Your task to perform on an android device: What's on my calendar tomorrow? Image 0: 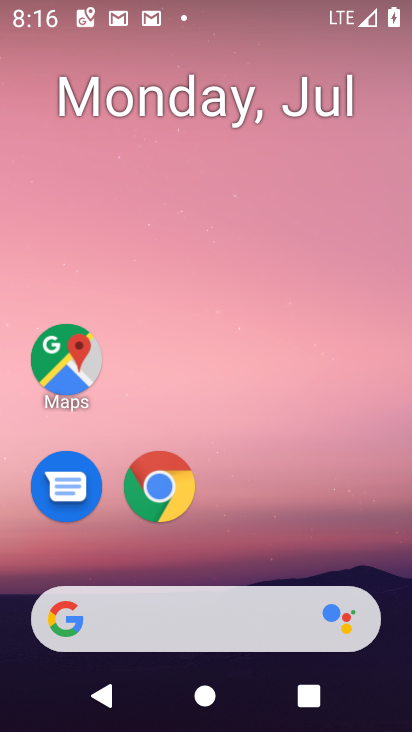
Step 0: click (228, 608)
Your task to perform on an android device: What's on my calendar tomorrow? Image 1: 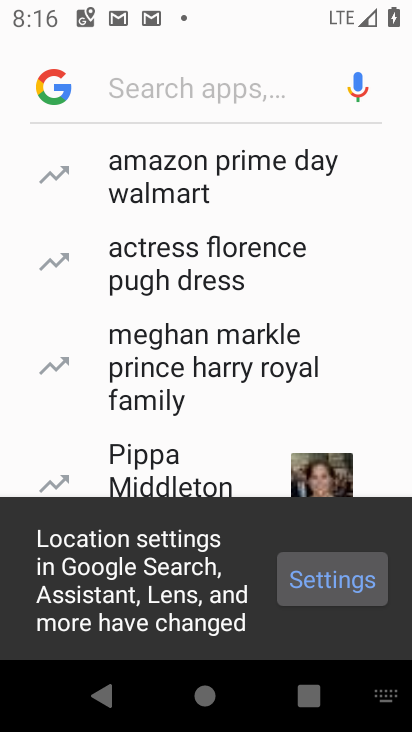
Step 1: click (213, 101)
Your task to perform on an android device: What's on my calendar tomorrow? Image 2: 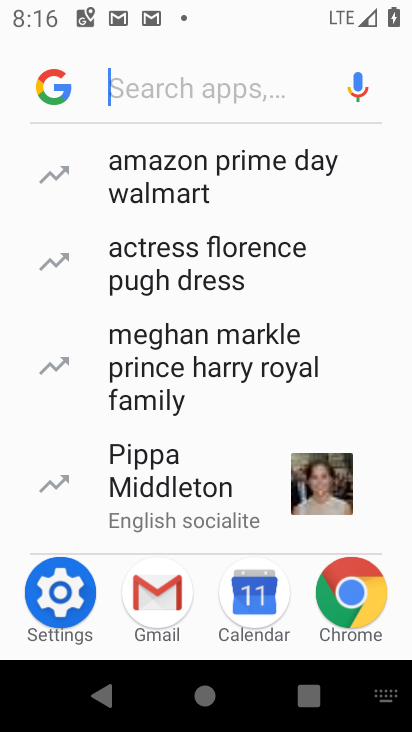
Step 2: press home button
Your task to perform on an android device: What's on my calendar tomorrow? Image 3: 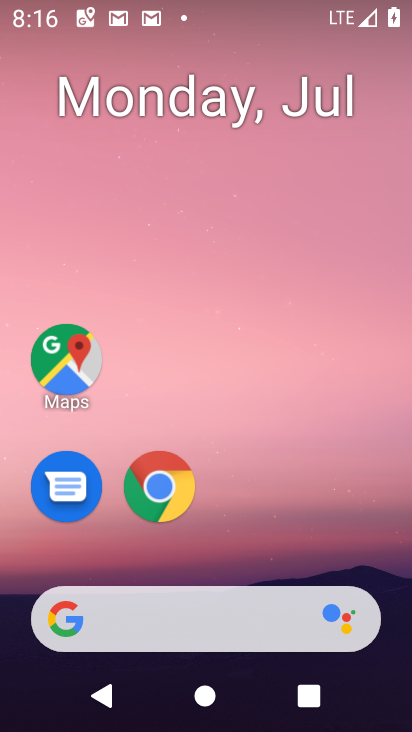
Step 3: drag from (348, 532) to (371, 50)
Your task to perform on an android device: What's on my calendar tomorrow? Image 4: 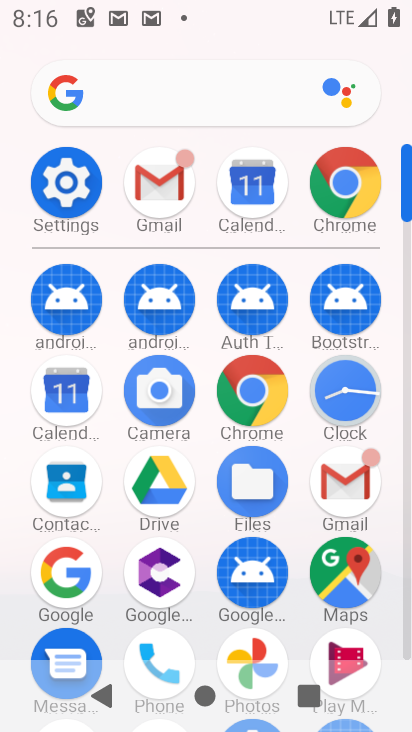
Step 4: click (78, 401)
Your task to perform on an android device: What's on my calendar tomorrow? Image 5: 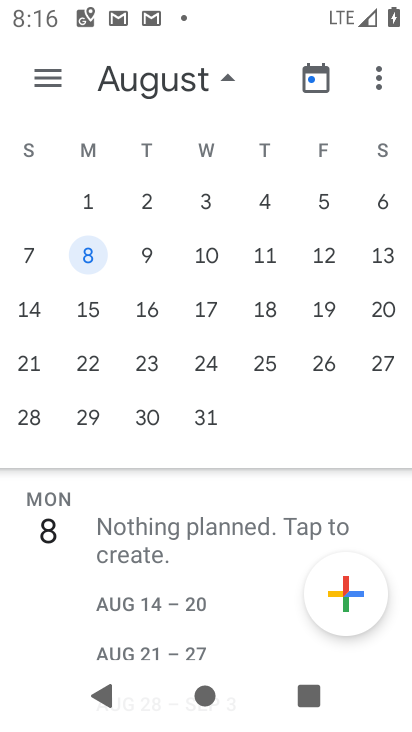
Step 5: click (78, 401)
Your task to perform on an android device: What's on my calendar tomorrow? Image 6: 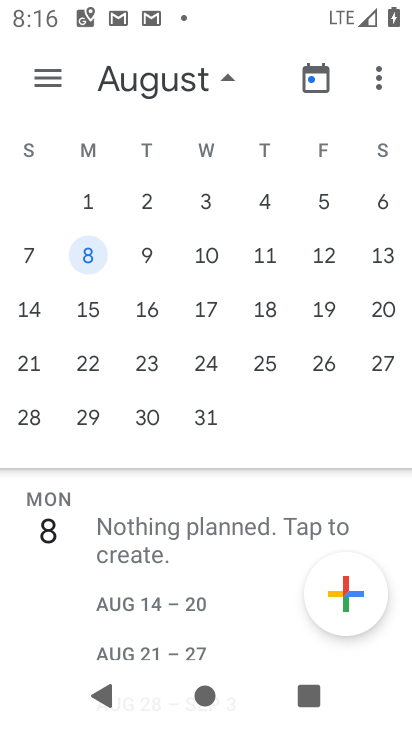
Step 6: drag from (228, 167) to (231, 400)
Your task to perform on an android device: What's on my calendar tomorrow? Image 7: 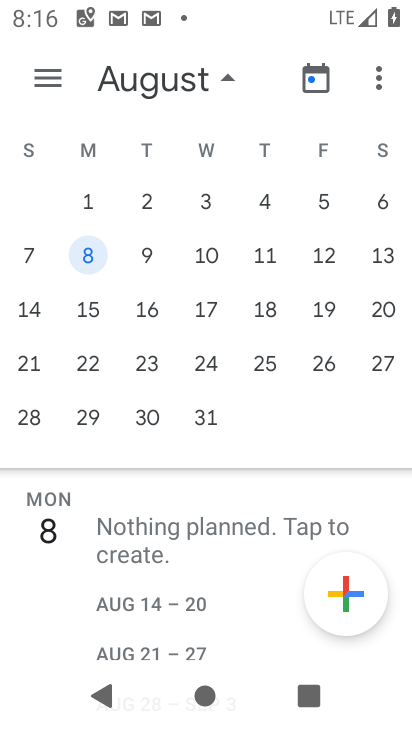
Step 7: drag from (260, 563) to (262, 168)
Your task to perform on an android device: What's on my calendar tomorrow? Image 8: 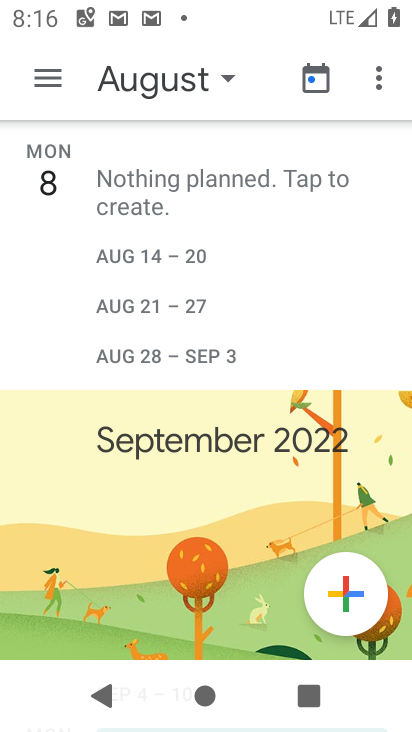
Step 8: drag from (236, 221) to (245, 465)
Your task to perform on an android device: What's on my calendar tomorrow? Image 9: 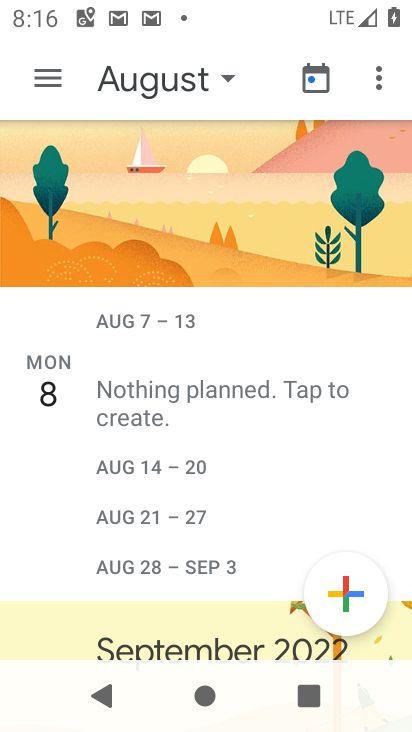
Step 9: drag from (239, 212) to (245, 490)
Your task to perform on an android device: What's on my calendar tomorrow? Image 10: 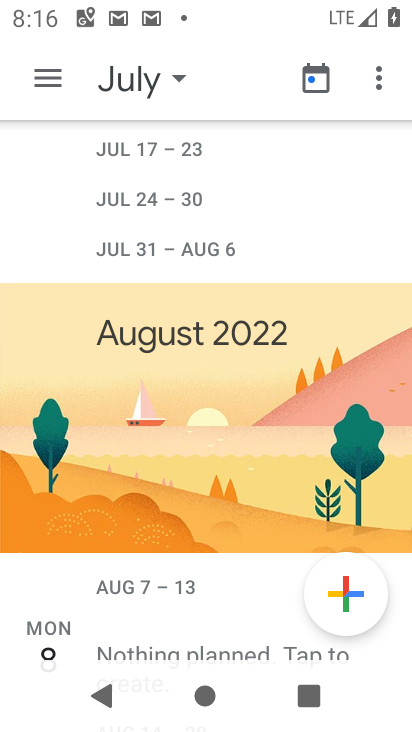
Step 10: drag from (290, 193) to (295, 416)
Your task to perform on an android device: What's on my calendar tomorrow? Image 11: 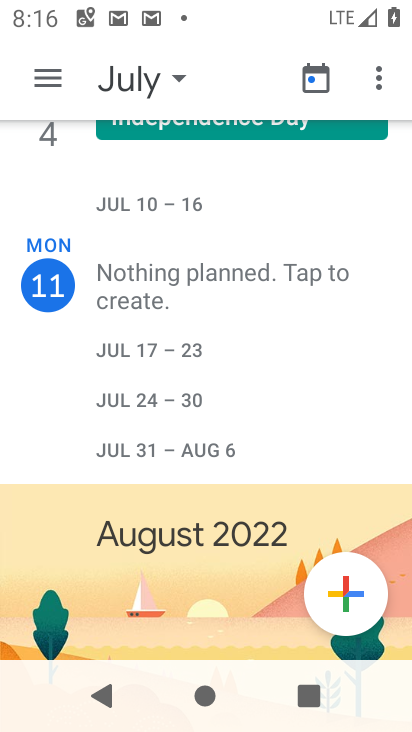
Step 11: click (184, 72)
Your task to perform on an android device: What's on my calendar tomorrow? Image 12: 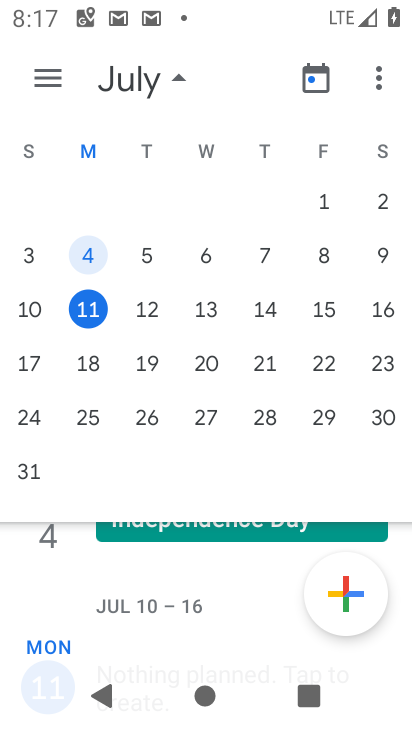
Step 12: click (213, 305)
Your task to perform on an android device: What's on my calendar tomorrow? Image 13: 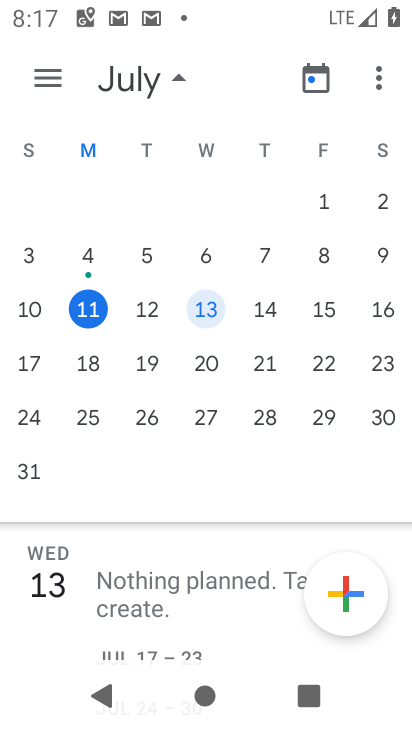
Step 13: task complete